Your task to perform on an android device: Search for pizza restaurants on Maps Image 0: 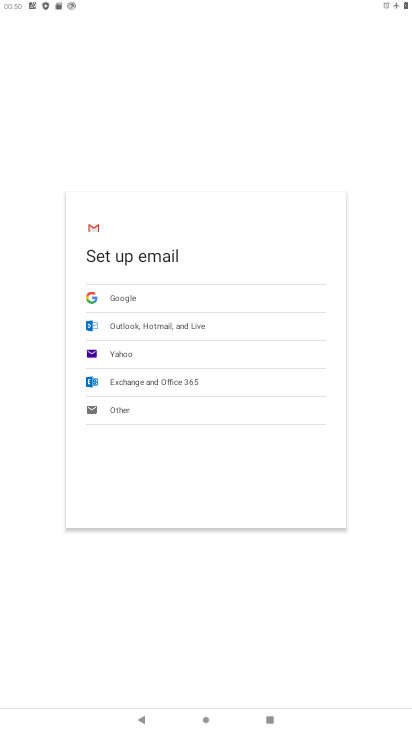
Step 0: press home button
Your task to perform on an android device: Search for pizza restaurants on Maps Image 1: 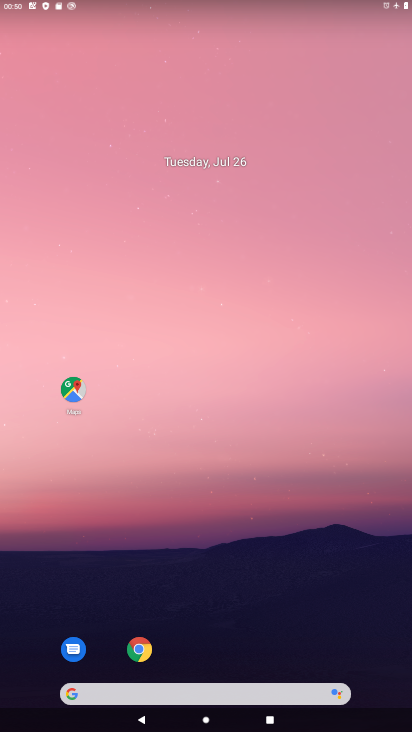
Step 1: drag from (180, 617) to (178, 242)
Your task to perform on an android device: Search for pizza restaurants on Maps Image 2: 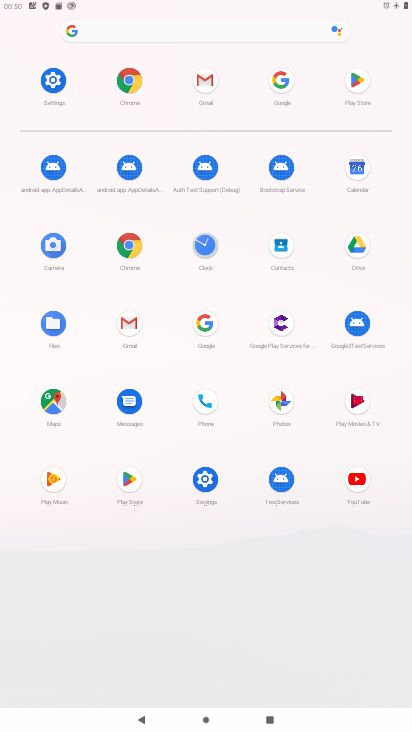
Step 2: click (43, 398)
Your task to perform on an android device: Search for pizza restaurants on Maps Image 3: 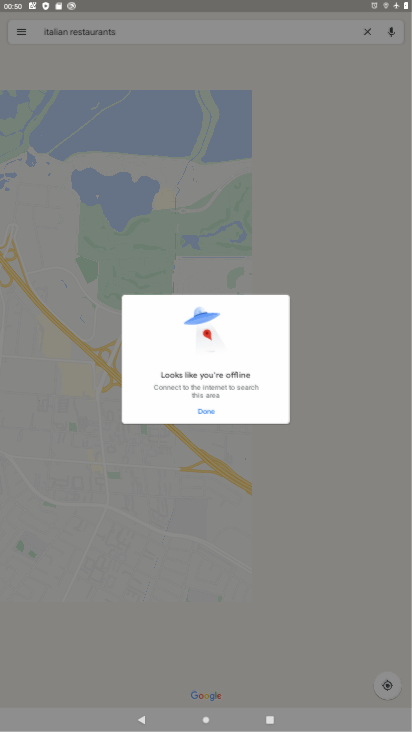
Step 3: click (205, 411)
Your task to perform on an android device: Search for pizza restaurants on Maps Image 4: 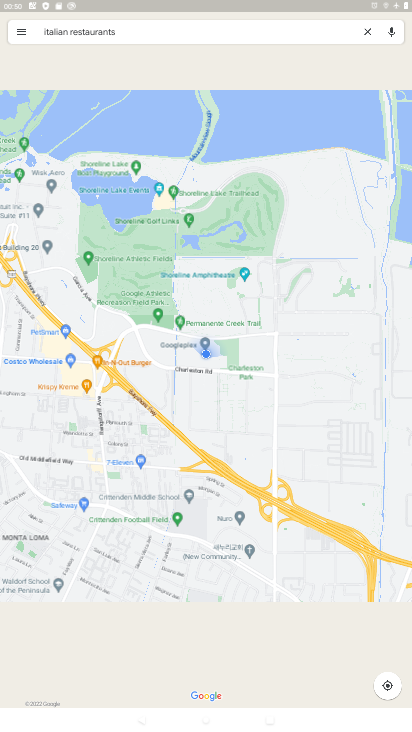
Step 4: click (199, 28)
Your task to perform on an android device: Search for pizza restaurants on Maps Image 5: 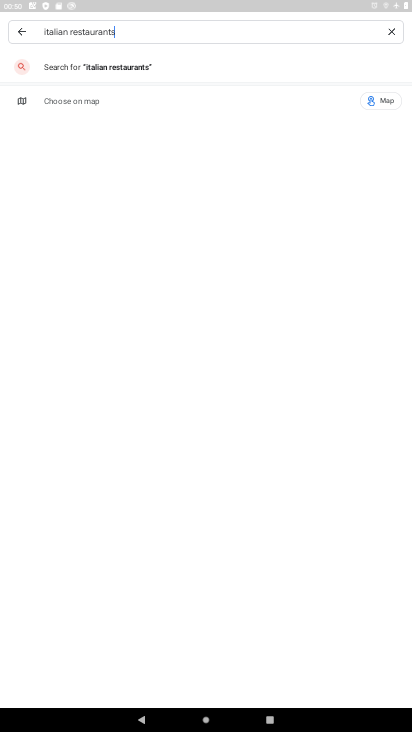
Step 5: click (393, 29)
Your task to perform on an android device: Search for pizza restaurants on Maps Image 6: 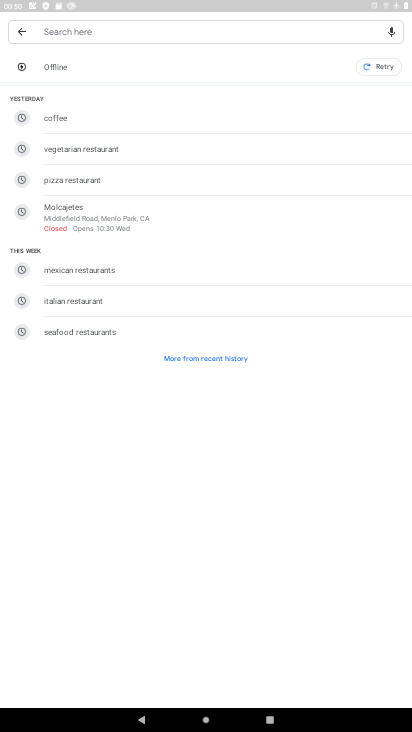
Step 6: type "pizza restauarants"
Your task to perform on an android device: Search for pizza restaurants on Maps Image 7: 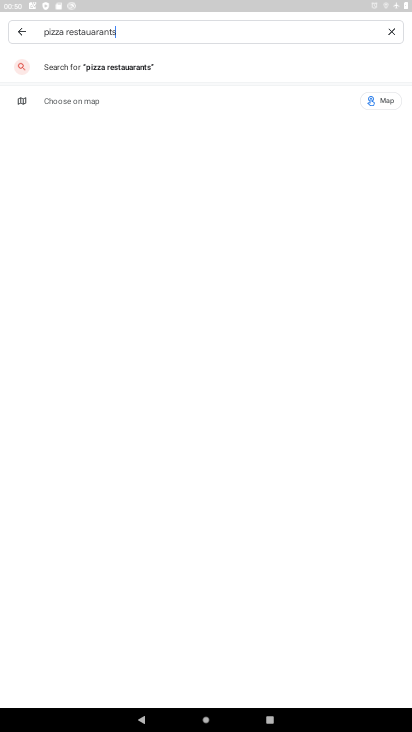
Step 7: type ""
Your task to perform on an android device: Search for pizza restaurants on Maps Image 8: 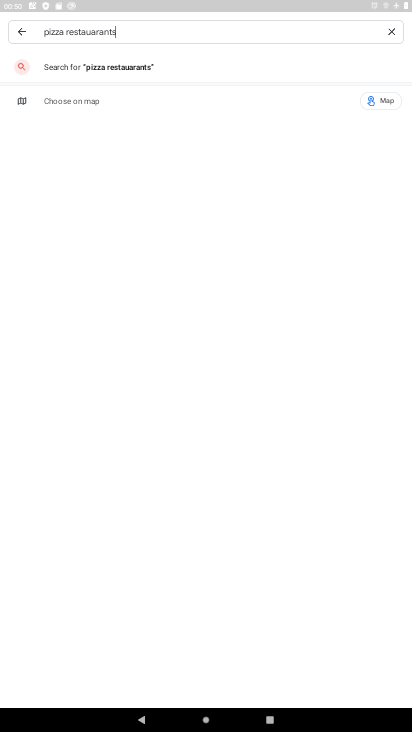
Step 8: click (124, 65)
Your task to perform on an android device: Search for pizza restaurants on Maps Image 9: 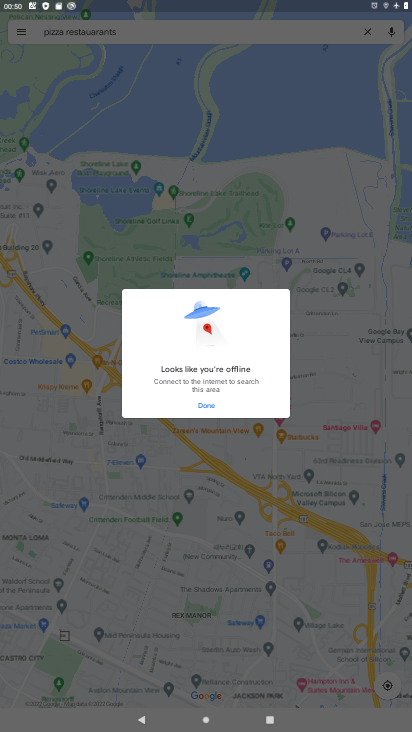
Step 9: task complete